Your task to perform on an android device: turn notification dots on Image 0: 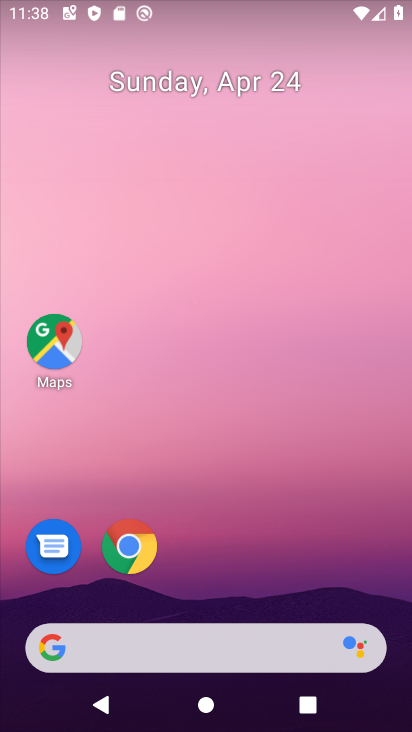
Step 0: drag from (210, 581) to (220, 153)
Your task to perform on an android device: turn notification dots on Image 1: 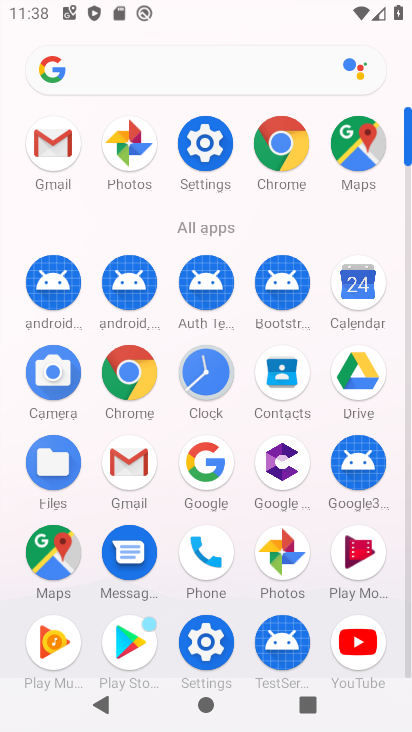
Step 1: click (204, 168)
Your task to perform on an android device: turn notification dots on Image 2: 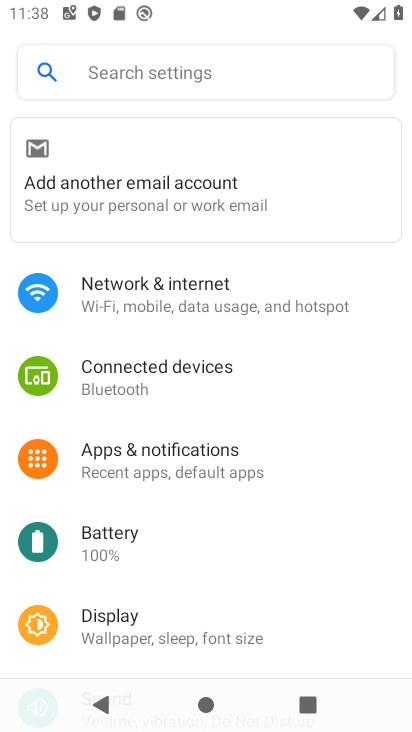
Step 2: click (205, 460)
Your task to perform on an android device: turn notification dots on Image 3: 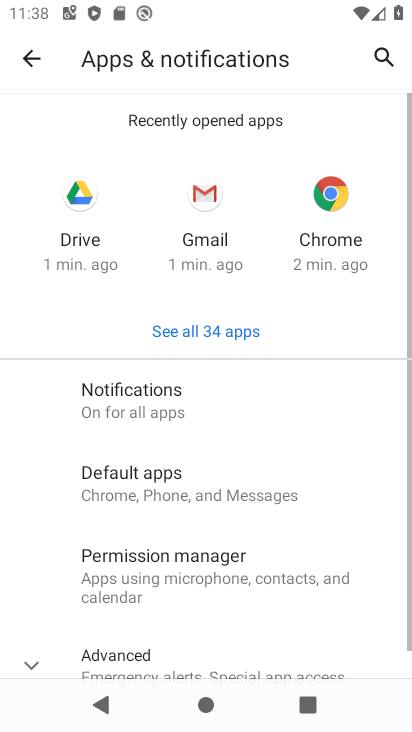
Step 3: click (200, 393)
Your task to perform on an android device: turn notification dots on Image 4: 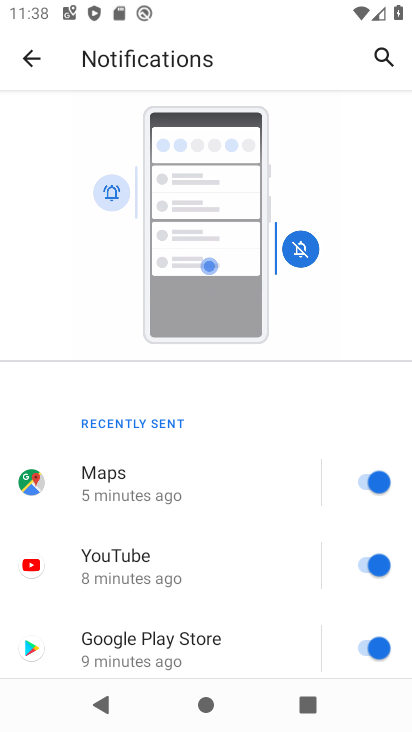
Step 4: drag from (235, 544) to (279, 304)
Your task to perform on an android device: turn notification dots on Image 5: 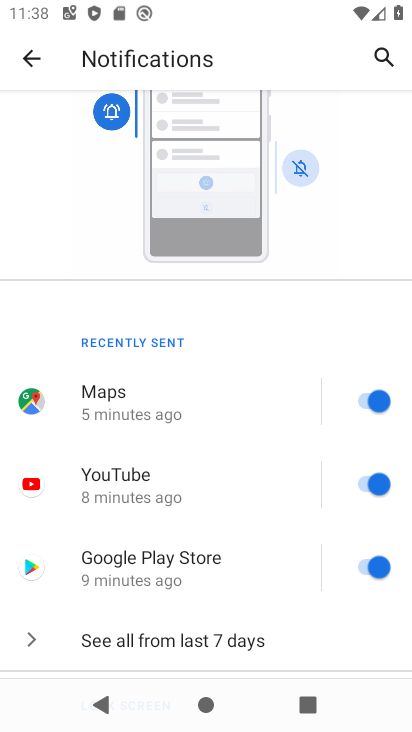
Step 5: drag from (208, 557) to (226, 364)
Your task to perform on an android device: turn notification dots on Image 6: 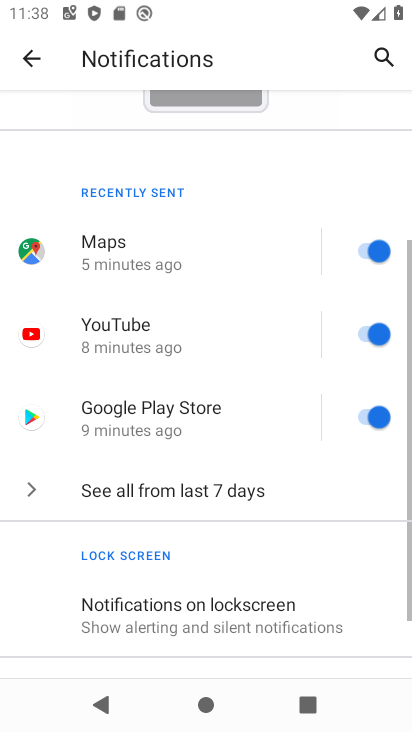
Step 6: drag from (243, 632) to (243, 412)
Your task to perform on an android device: turn notification dots on Image 7: 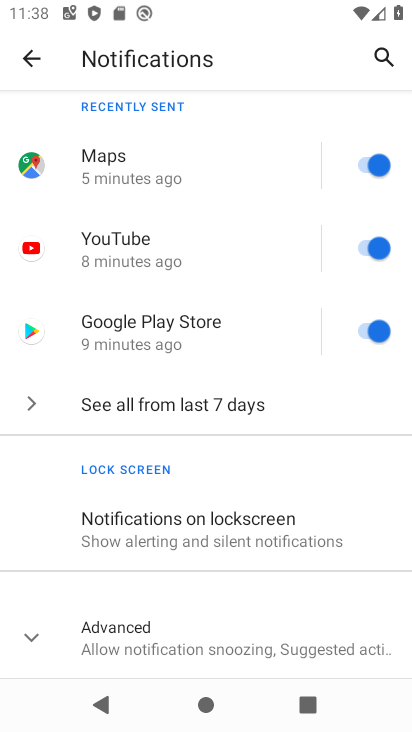
Step 7: click (191, 613)
Your task to perform on an android device: turn notification dots on Image 8: 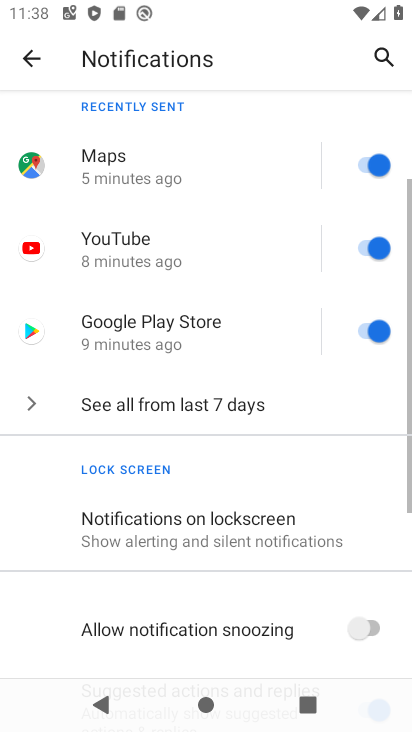
Step 8: task complete